Your task to perform on an android device: show emergency info Image 0: 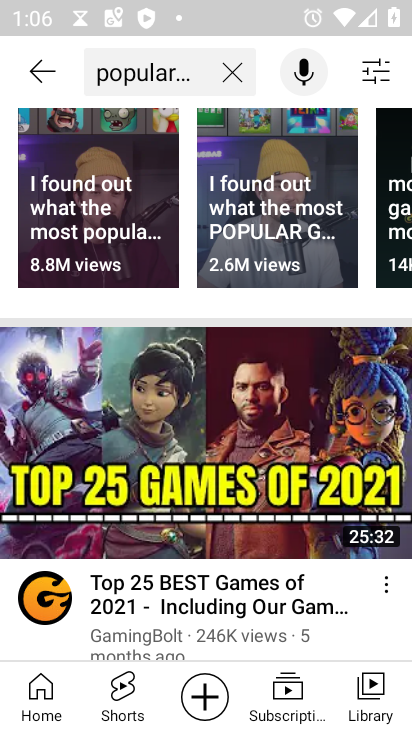
Step 0: drag from (372, 607) to (348, 111)
Your task to perform on an android device: show emergency info Image 1: 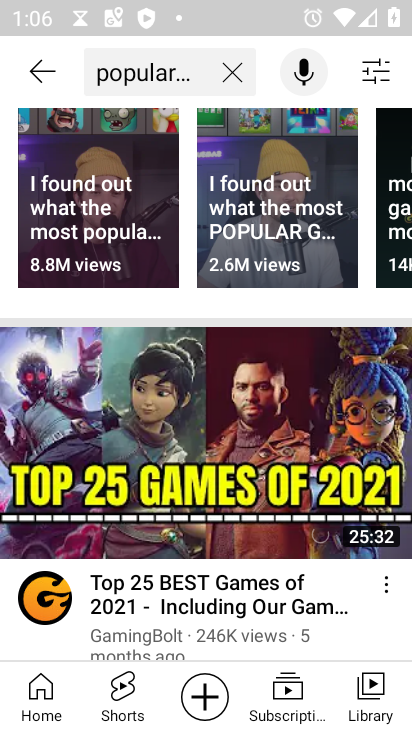
Step 1: press home button
Your task to perform on an android device: show emergency info Image 2: 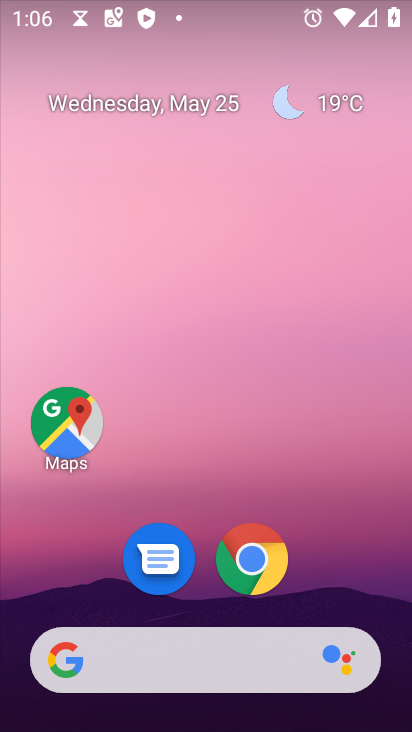
Step 2: drag from (353, 568) to (334, 3)
Your task to perform on an android device: show emergency info Image 3: 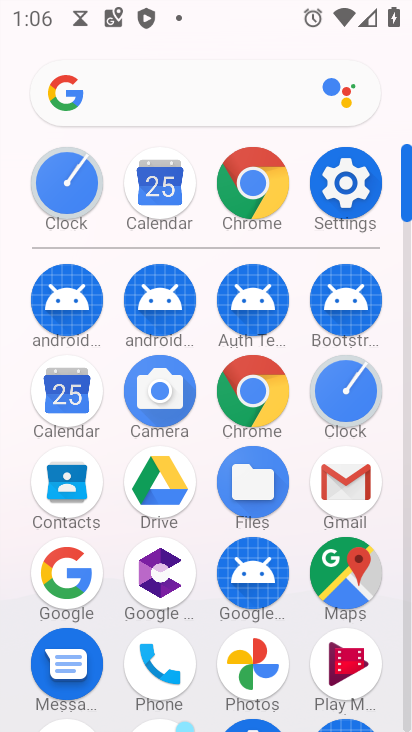
Step 3: click (349, 192)
Your task to perform on an android device: show emergency info Image 4: 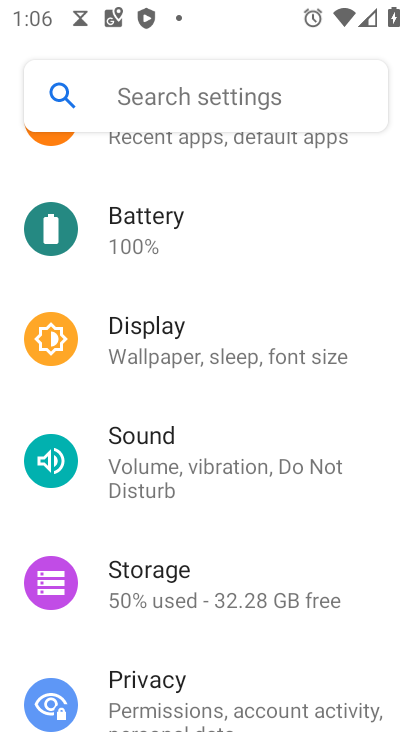
Step 4: drag from (200, 651) to (222, 50)
Your task to perform on an android device: show emergency info Image 5: 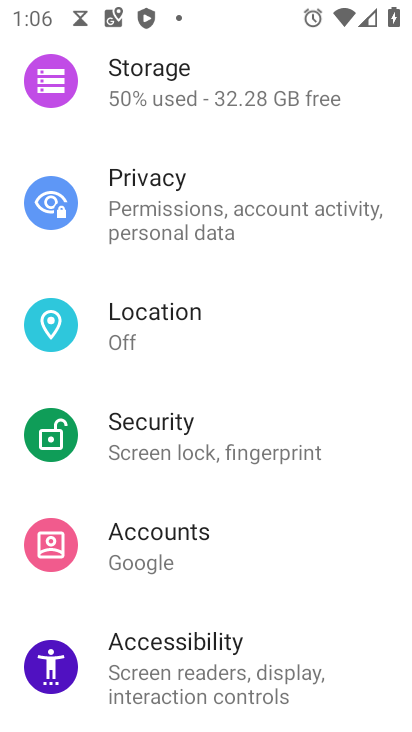
Step 5: drag from (215, 602) to (293, 94)
Your task to perform on an android device: show emergency info Image 6: 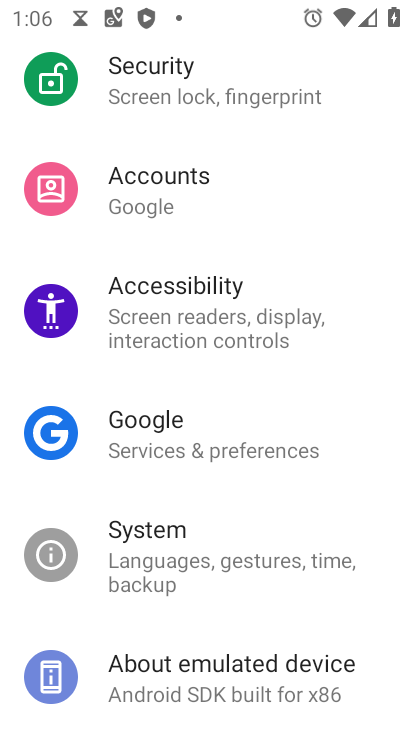
Step 6: drag from (153, 629) to (258, 83)
Your task to perform on an android device: show emergency info Image 7: 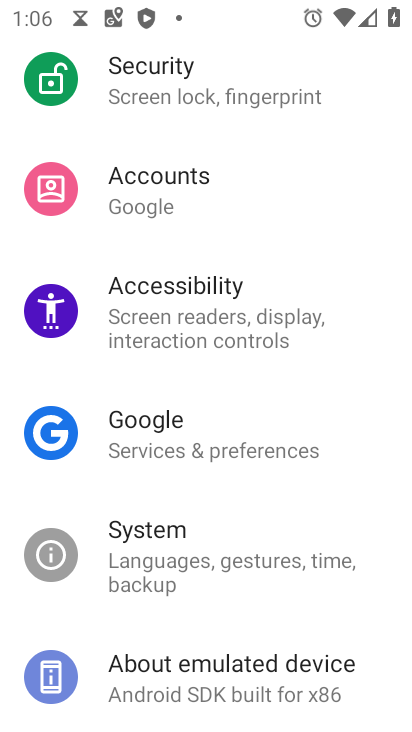
Step 7: click (244, 645)
Your task to perform on an android device: show emergency info Image 8: 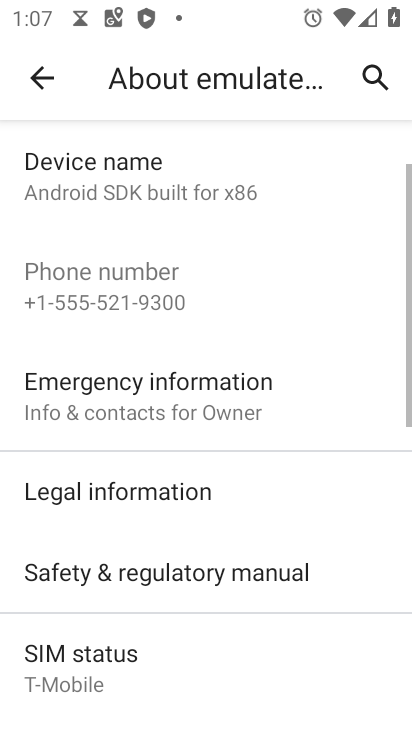
Step 8: click (205, 401)
Your task to perform on an android device: show emergency info Image 9: 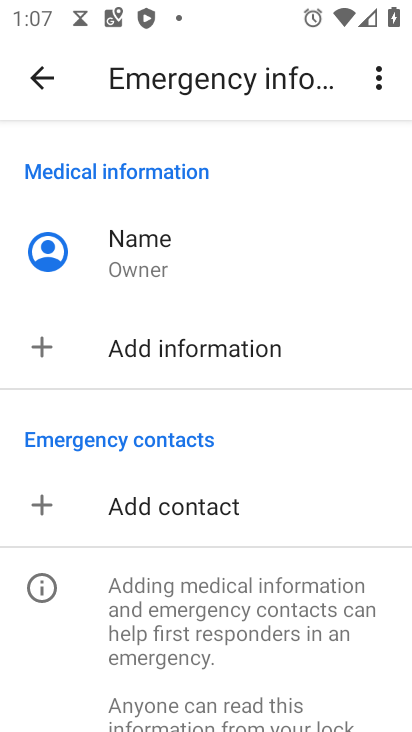
Step 9: task complete